Your task to perform on an android device: turn off picture-in-picture Image 0: 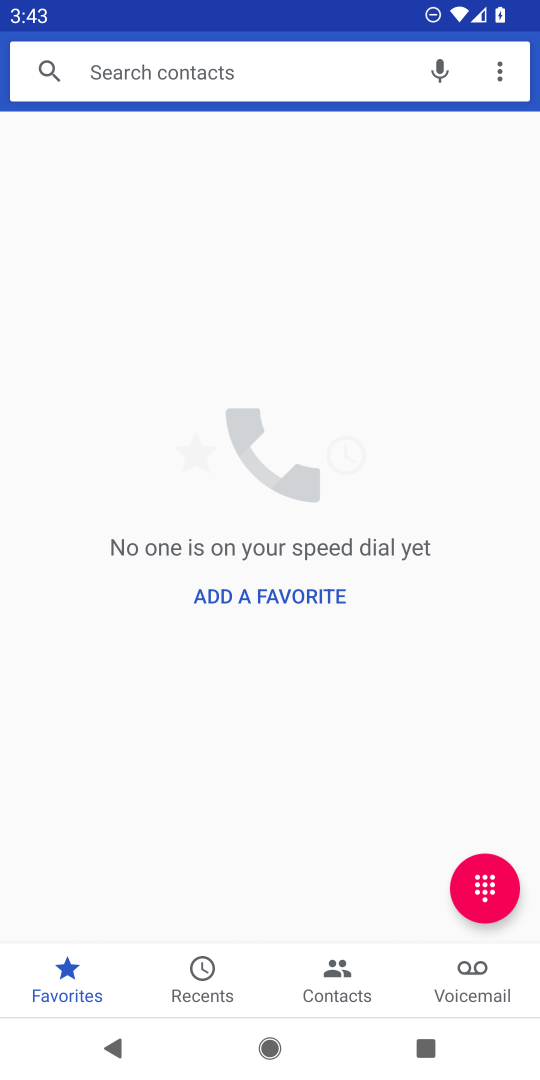
Step 0: press home button
Your task to perform on an android device: turn off picture-in-picture Image 1: 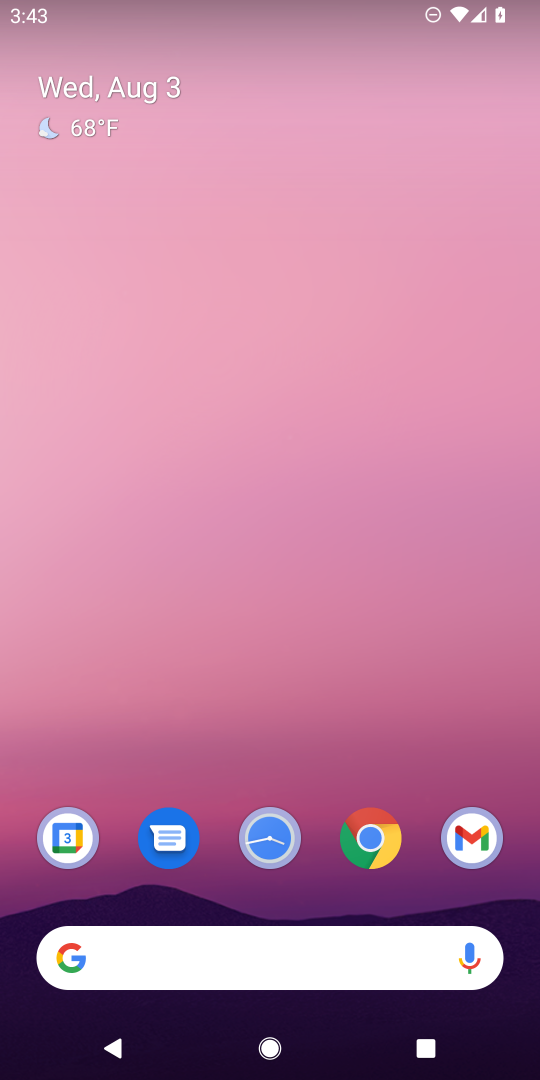
Step 1: click (361, 856)
Your task to perform on an android device: turn off picture-in-picture Image 2: 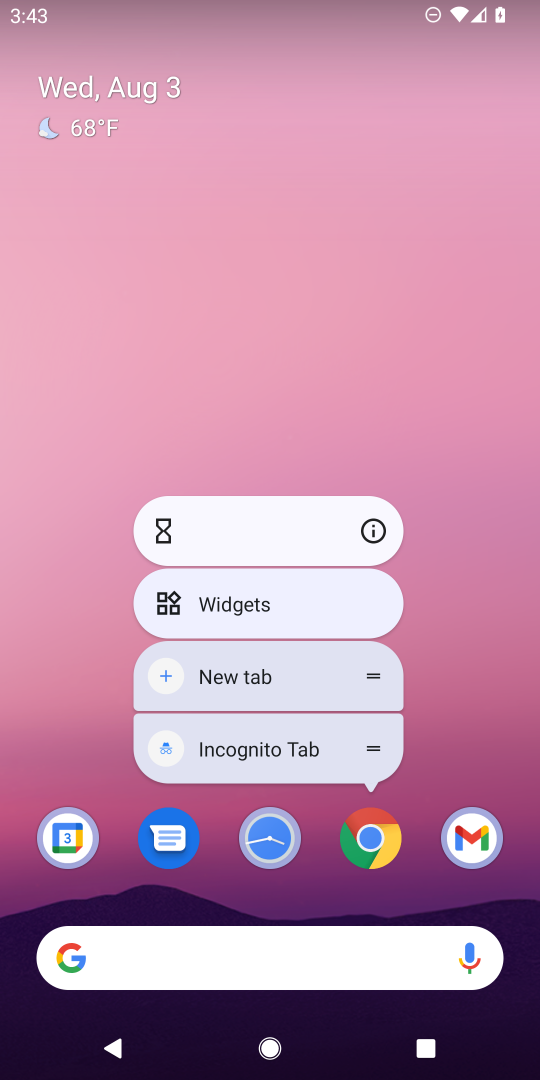
Step 2: click (370, 536)
Your task to perform on an android device: turn off picture-in-picture Image 3: 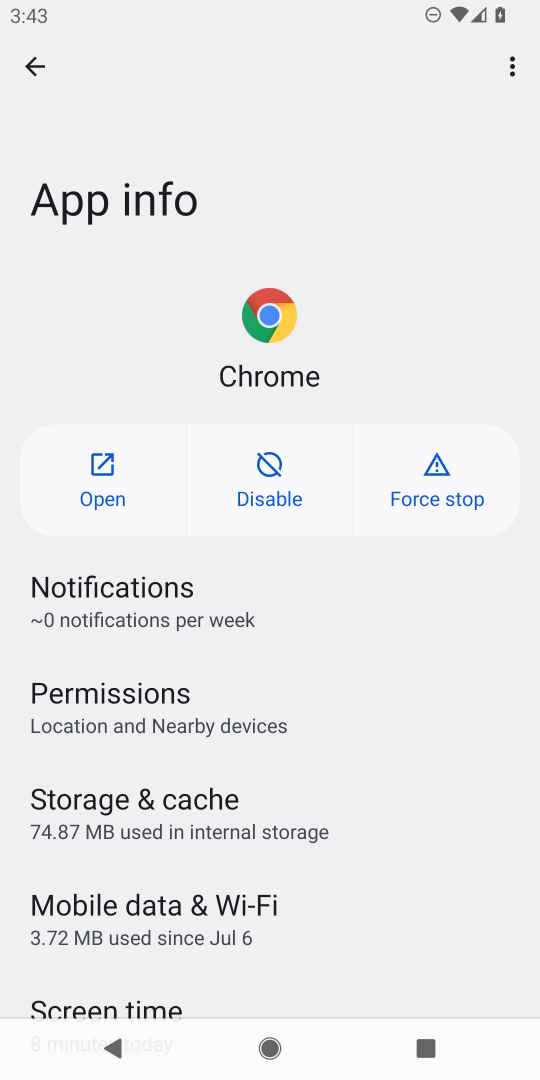
Step 3: drag from (179, 943) to (203, 552)
Your task to perform on an android device: turn off picture-in-picture Image 4: 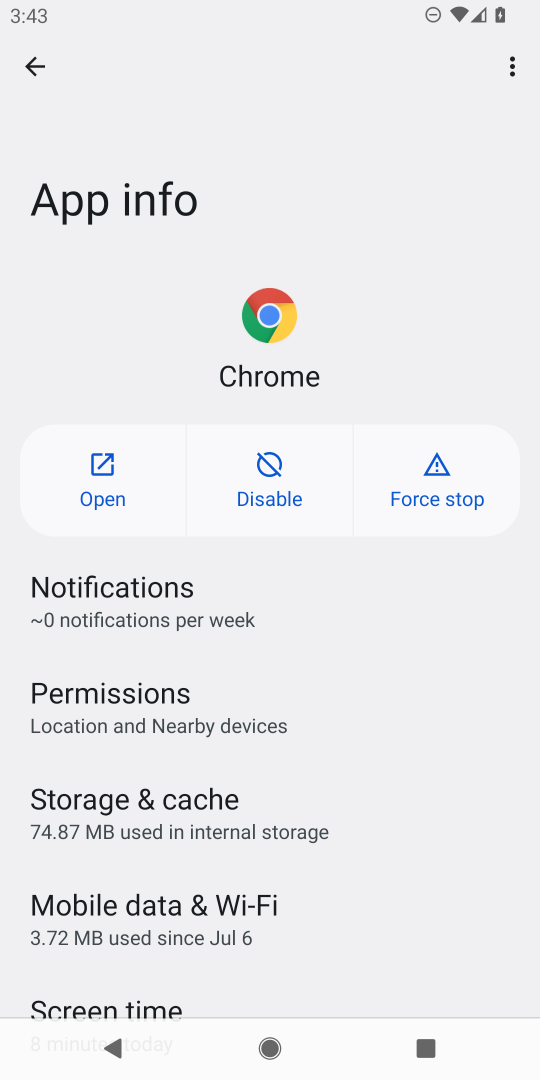
Step 4: drag from (190, 970) to (190, 467)
Your task to perform on an android device: turn off picture-in-picture Image 5: 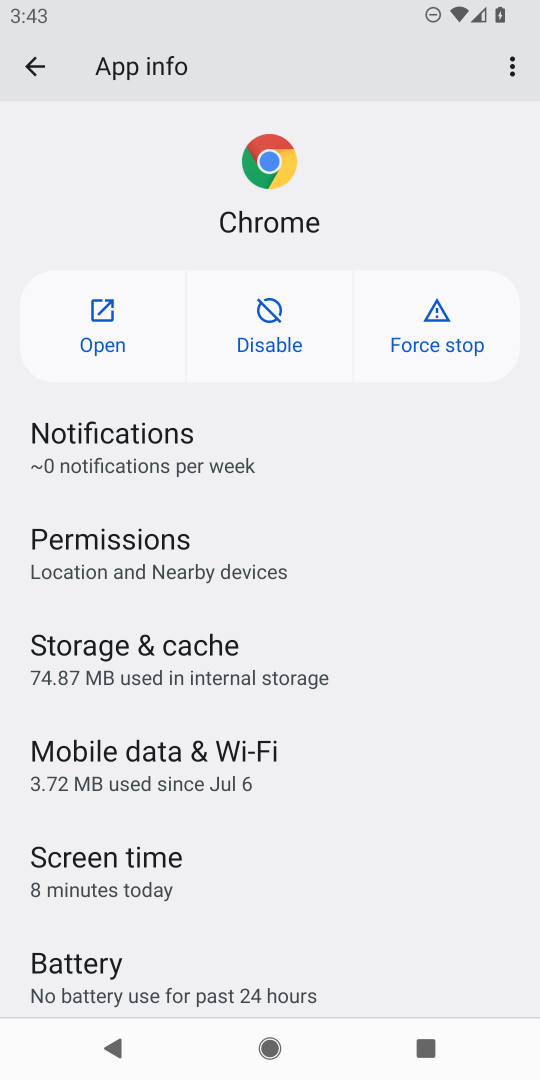
Step 5: drag from (196, 956) to (211, 442)
Your task to perform on an android device: turn off picture-in-picture Image 6: 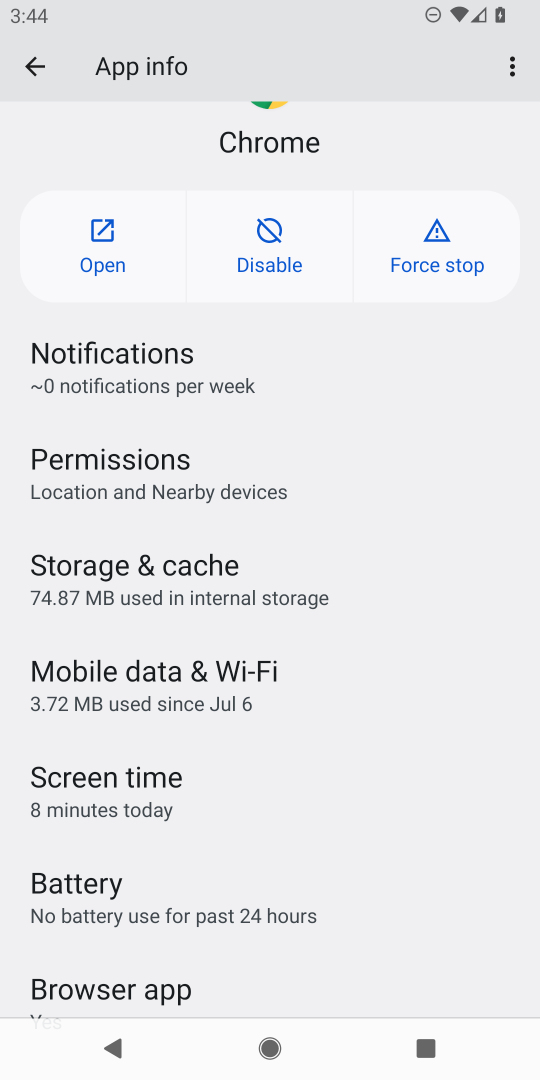
Step 6: drag from (204, 919) to (181, 242)
Your task to perform on an android device: turn off picture-in-picture Image 7: 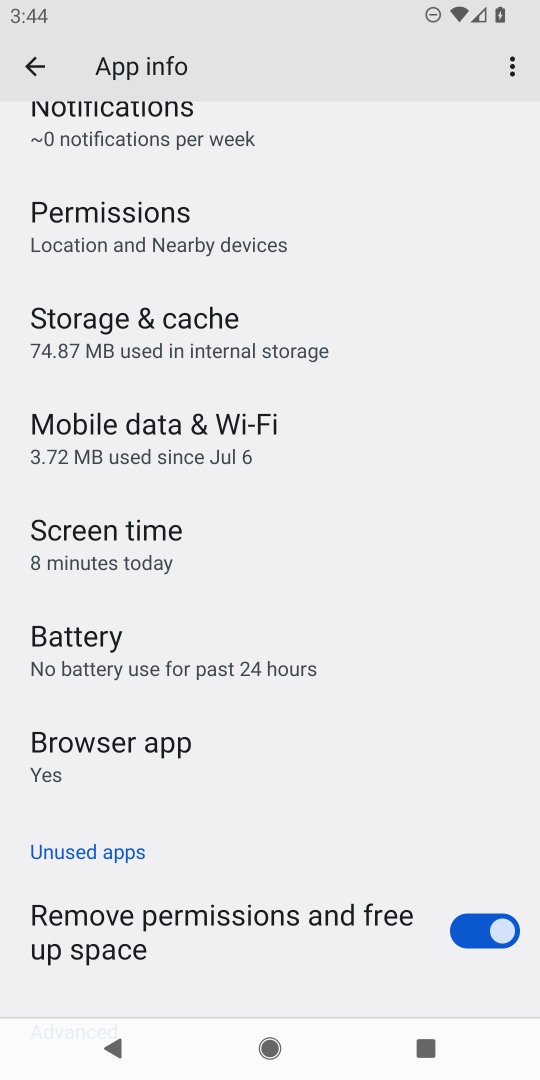
Step 7: drag from (153, 763) to (147, 280)
Your task to perform on an android device: turn off picture-in-picture Image 8: 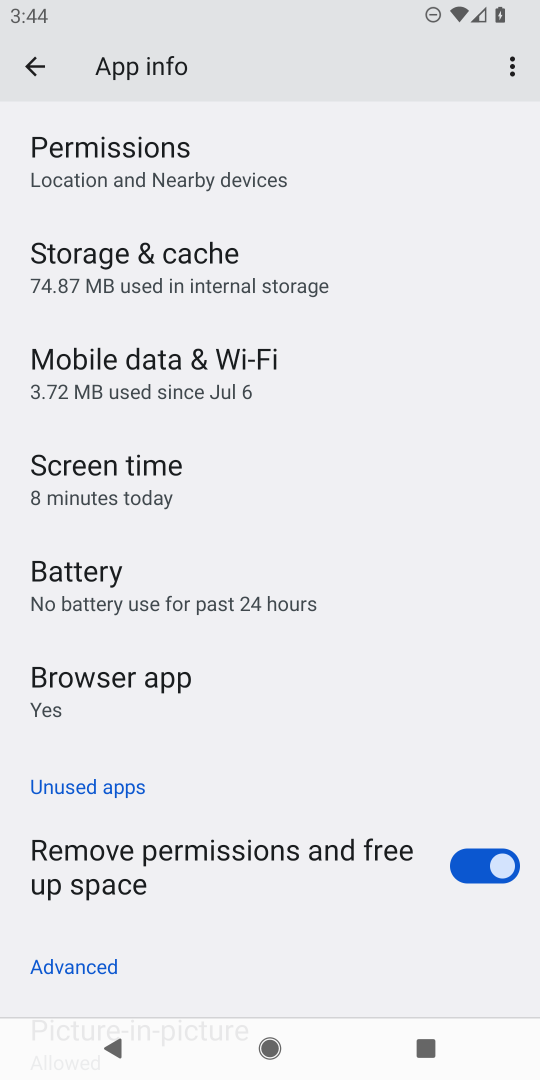
Step 8: drag from (168, 711) to (166, 49)
Your task to perform on an android device: turn off picture-in-picture Image 9: 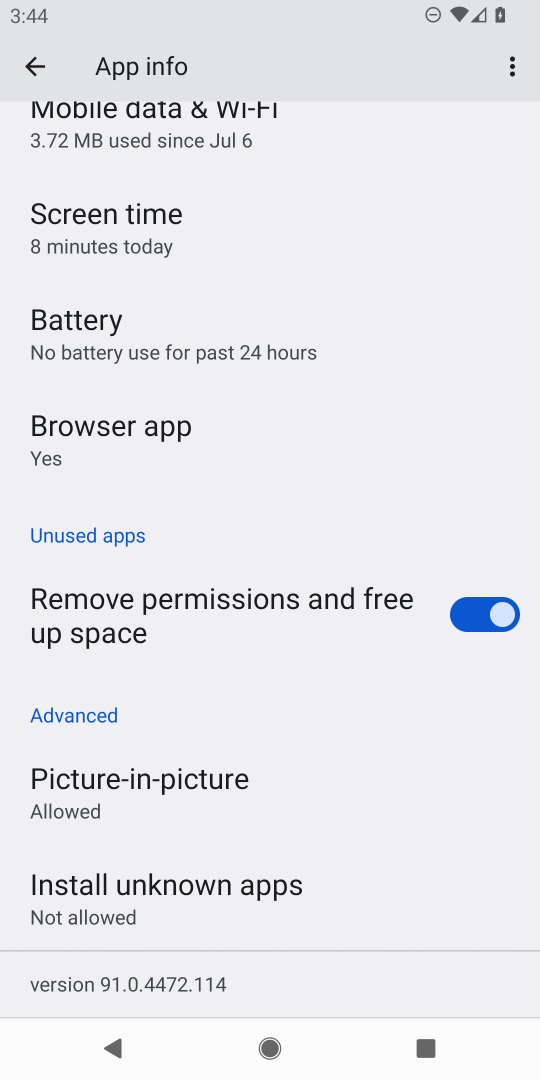
Step 9: click (129, 782)
Your task to perform on an android device: turn off picture-in-picture Image 10: 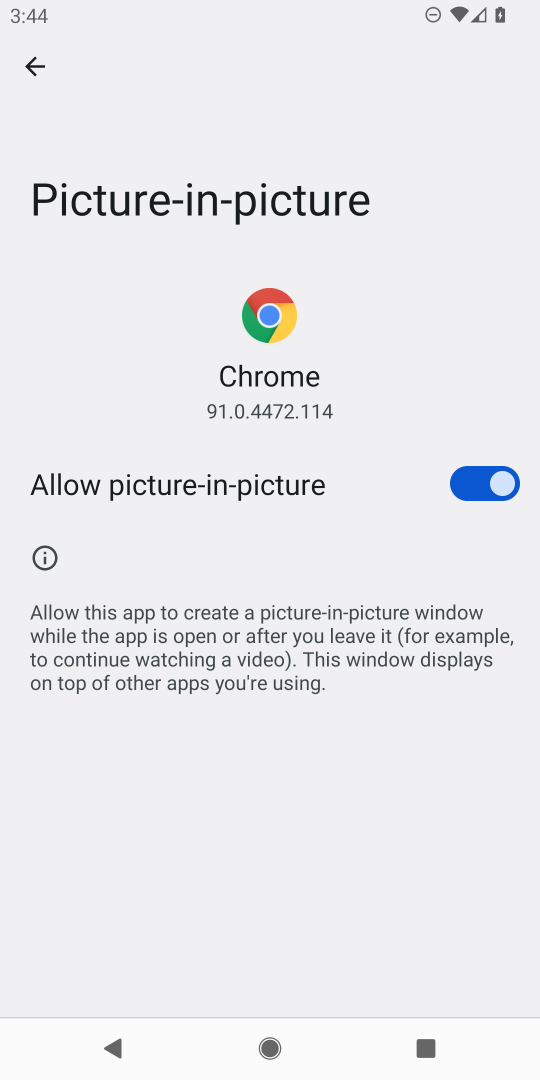
Step 10: click (461, 508)
Your task to perform on an android device: turn off picture-in-picture Image 11: 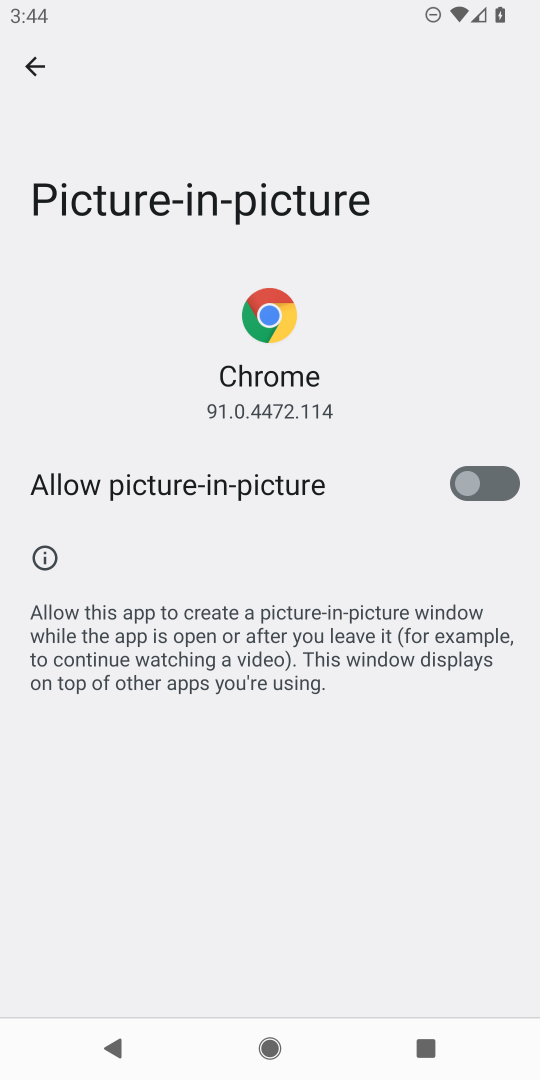
Step 11: task complete